Your task to perform on an android device: change the upload size in google photos Image 0: 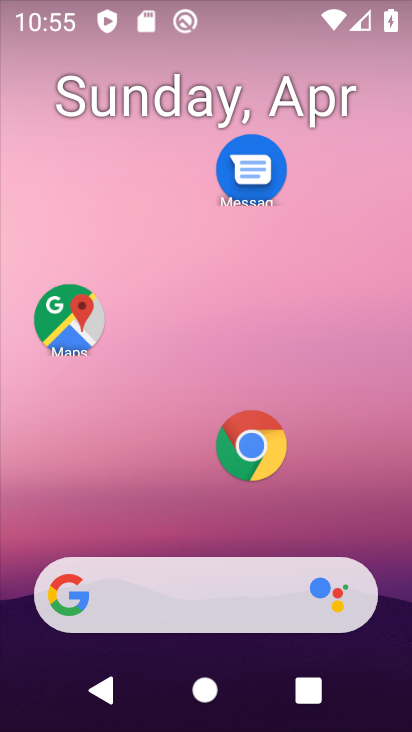
Step 0: drag from (186, 606) to (322, 234)
Your task to perform on an android device: change the upload size in google photos Image 1: 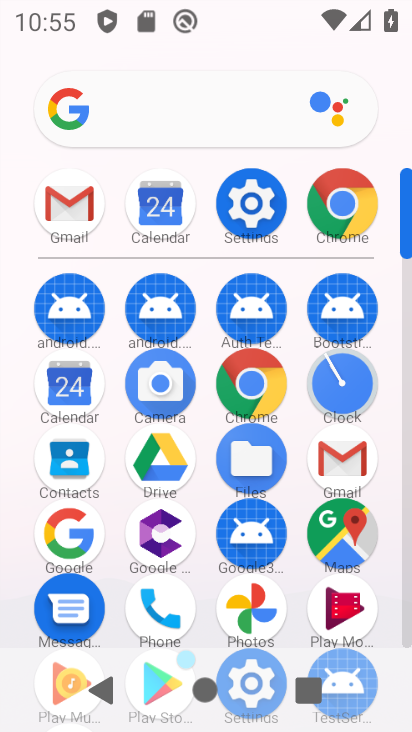
Step 1: click (251, 601)
Your task to perform on an android device: change the upload size in google photos Image 2: 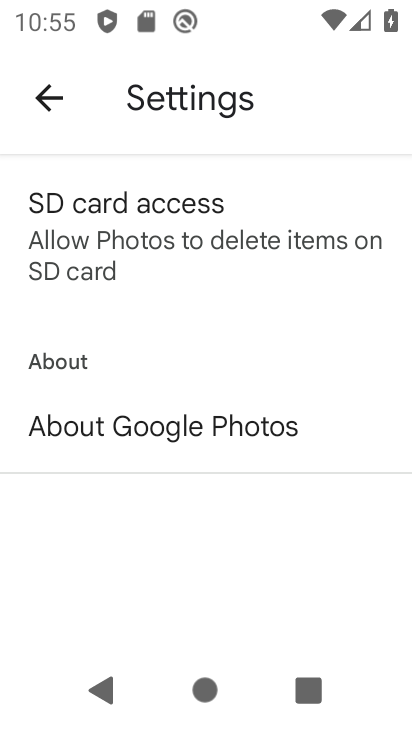
Step 2: click (43, 100)
Your task to perform on an android device: change the upload size in google photos Image 3: 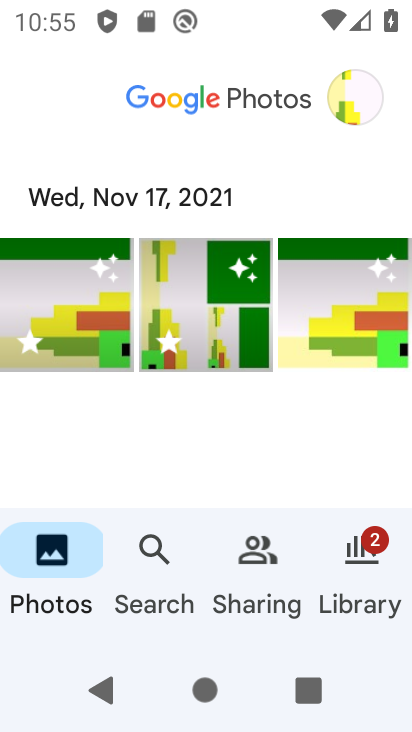
Step 3: click (361, 109)
Your task to perform on an android device: change the upload size in google photos Image 4: 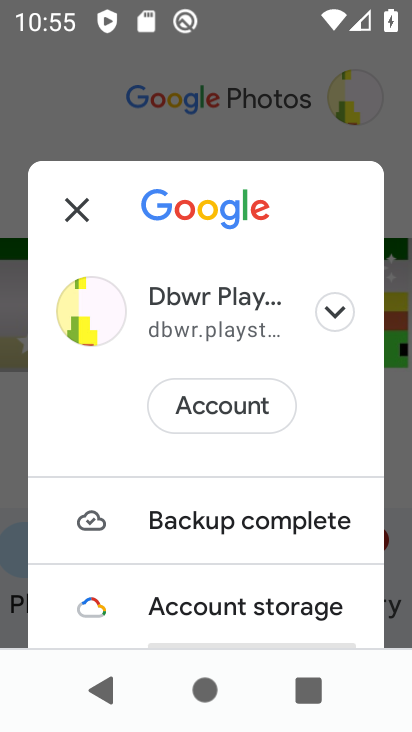
Step 4: drag from (160, 557) to (293, 270)
Your task to perform on an android device: change the upload size in google photos Image 5: 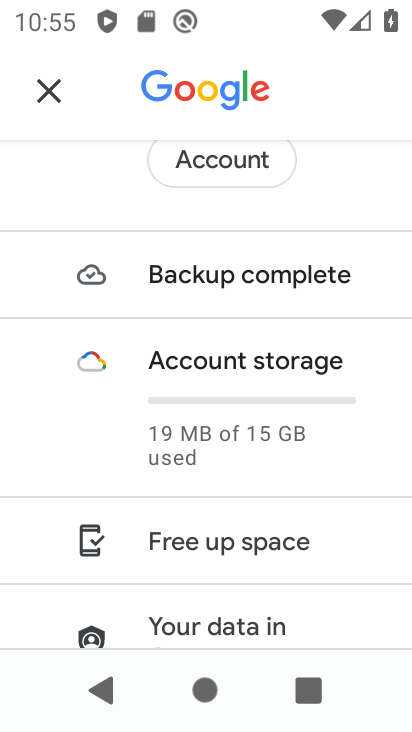
Step 5: drag from (247, 444) to (347, 129)
Your task to perform on an android device: change the upload size in google photos Image 6: 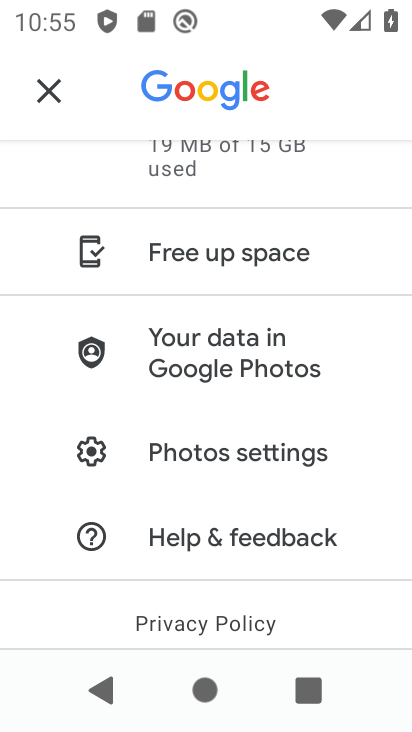
Step 6: click (245, 460)
Your task to perform on an android device: change the upload size in google photos Image 7: 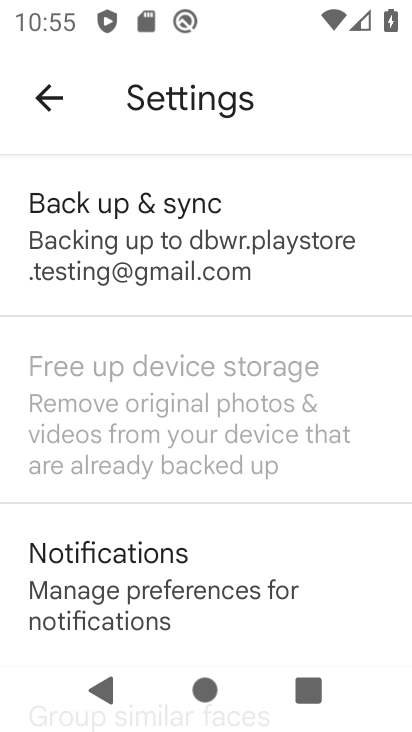
Step 7: click (194, 279)
Your task to perform on an android device: change the upload size in google photos Image 8: 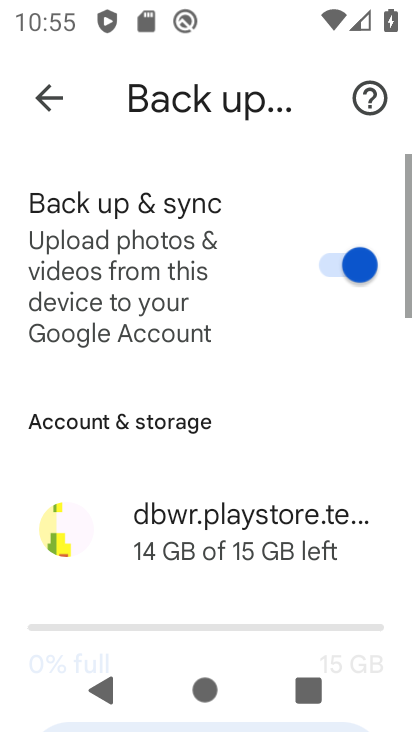
Step 8: drag from (91, 554) to (344, 169)
Your task to perform on an android device: change the upload size in google photos Image 9: 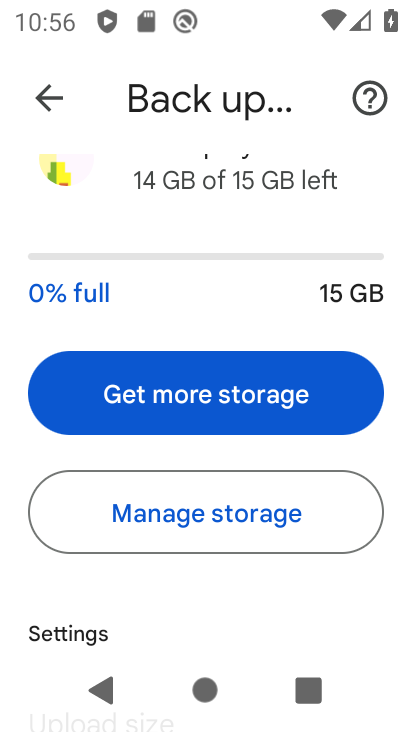
Step 9: drag from (145, 560) to (345, 142)
Your task to perform on an android device: change the upload size in google photos Image 10: 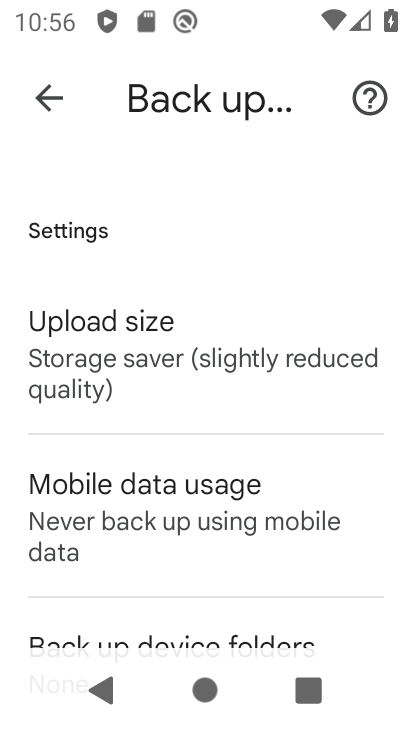
Step 10: click (130, 354)
Your task to perform on an android device: change the upload size in google photos Image 11: 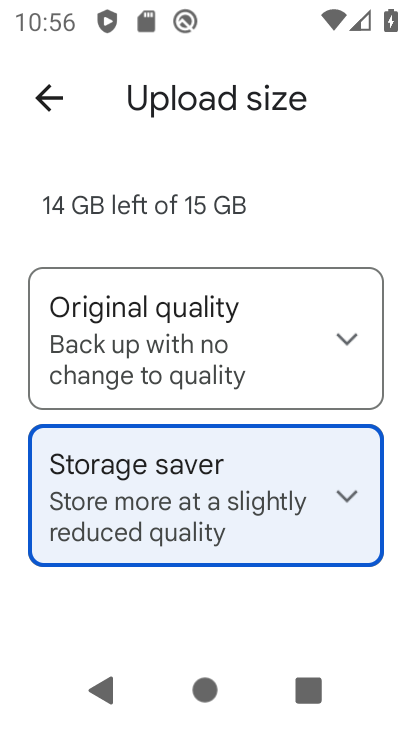
Step 11: click (158, 323)
Your task to perform on an android device: change the upload size in google photos Image 12: 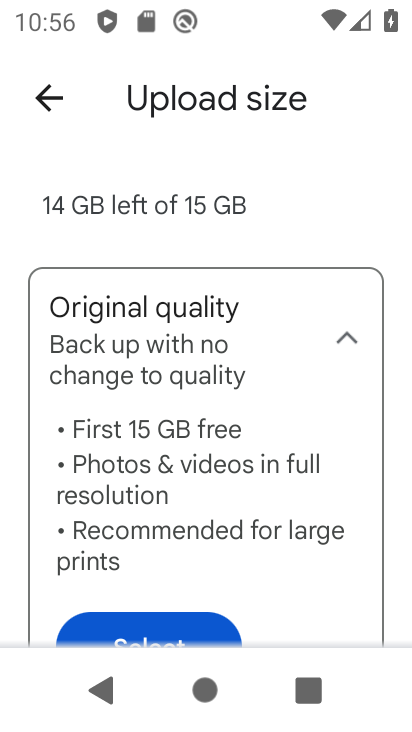
Step 12: drag from (181, 406) to (305, 148)
Your task to perform on an android device: change the upload size in google photos Image 13: 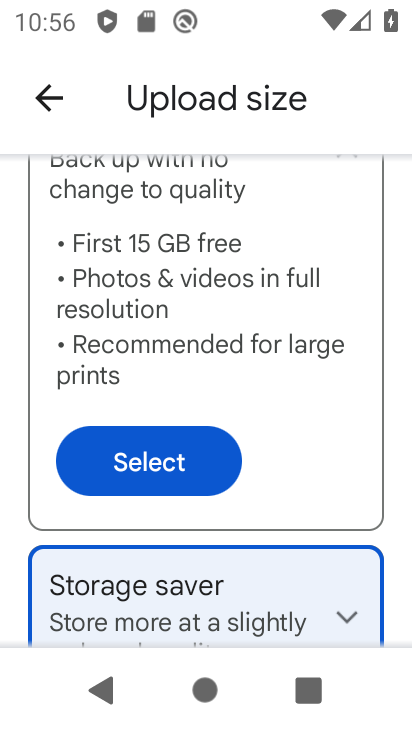
Step 13: click (165, 457)
Your task to perform on an android device: change the upload size in google photos Image 14: 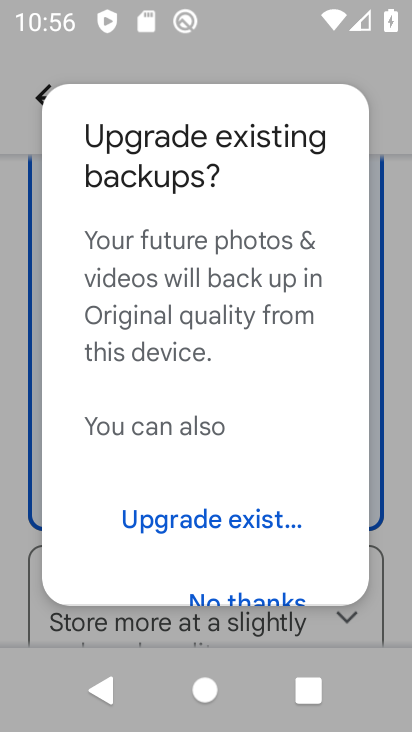
Step 14: drag from (194, 555) to (328, 269)
Your task to perform on an android device: change the upload size in google photos Image 15: 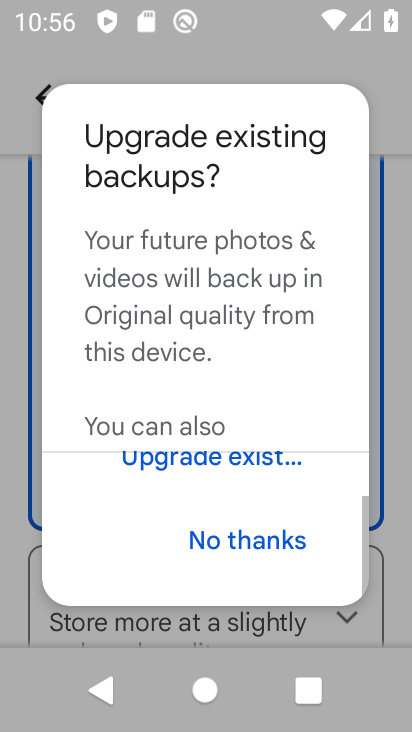
Step 15: click (219, 458)
Your task to perform on an android device: change the upload size in google photos Image 16: 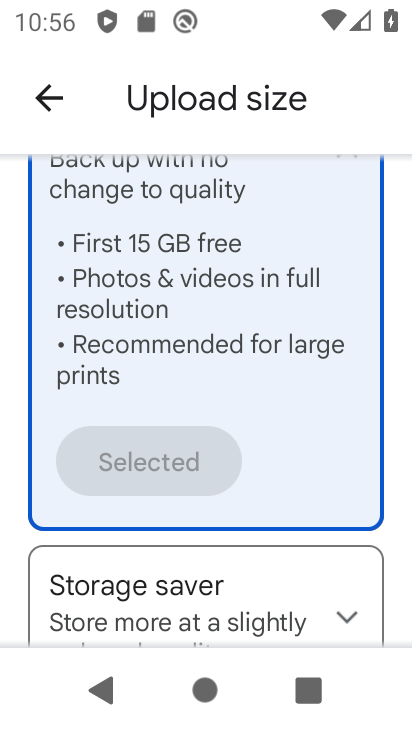
Step 16: click (51, 99)
Your task to perform on an android device: change the upload size in google photos Image 17: 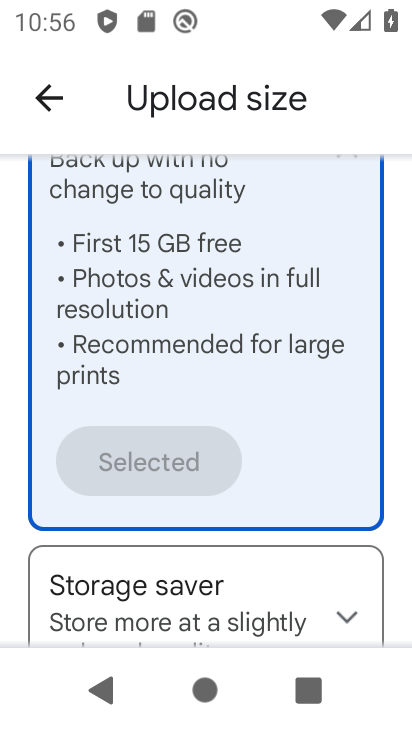
Step 17: click (60, 99)
Your task to perform on an android device: change the upload size in google photos Image 18: 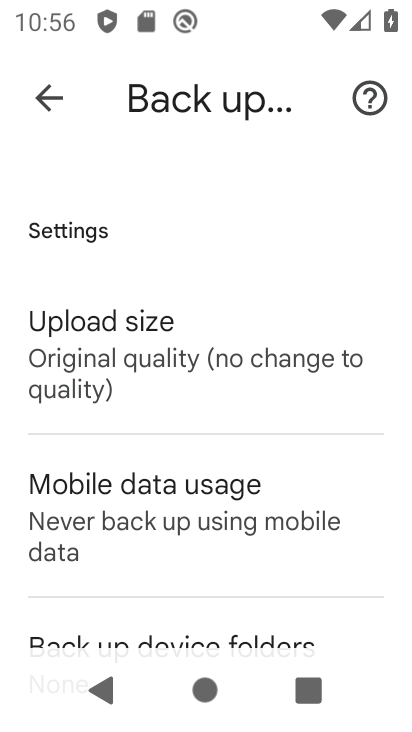
Step 18: task complete